Your task to perform on an android device: open a bookmark in the chrome app Image 0: 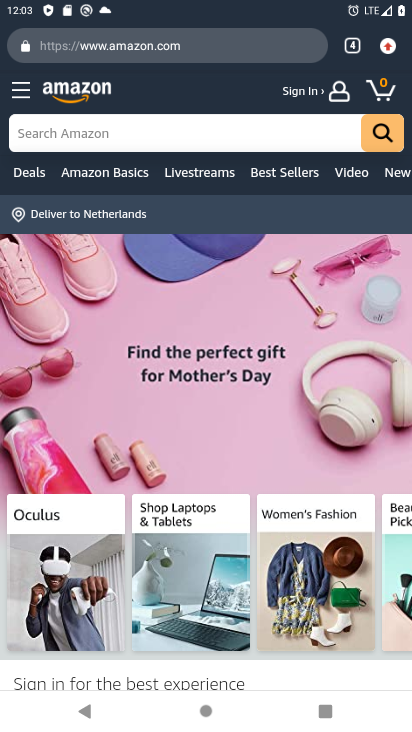
Step 0: press home button
Your task to perform on an android device: open a bookmark in the chrome app Image 1: 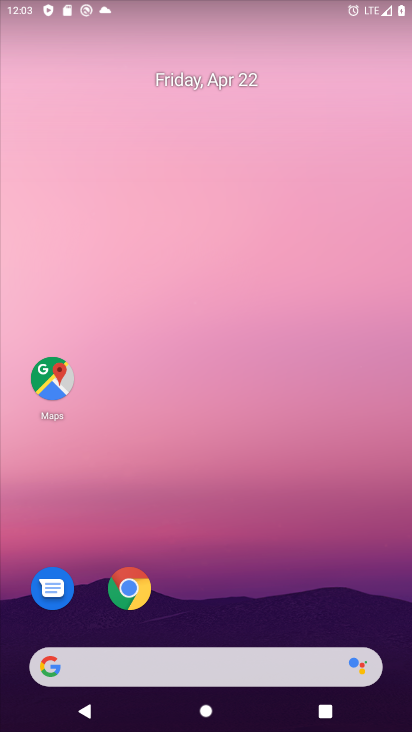
Step 1: drag from (253, 696) to (309, 256)
Your task to perform on an android device: open a bookmark in the chrome app Image 2: 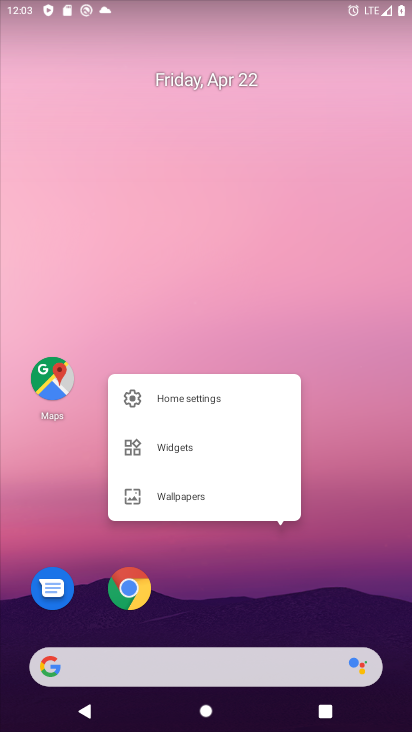
Step 2: click (330, 261)
Your task to perform on an android device: open a bookmark in the chrome app Image 3: 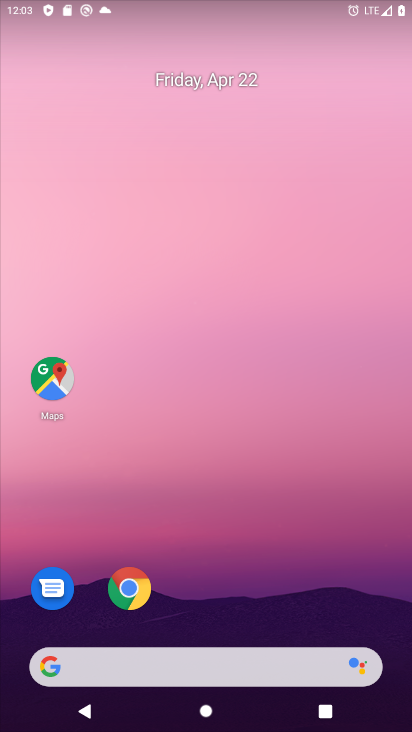
Step 3: drag from (247, 689) to (217, 145)
Your task to perform on an android device: open a bookmark in the chrome app Image 4: 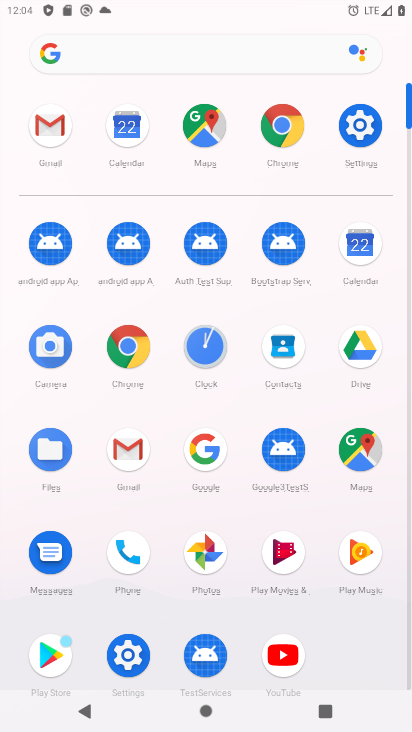
Step 4: click (279, 115)
Your task to perform on an android device: open a bookmark in the chrome app Image 5: 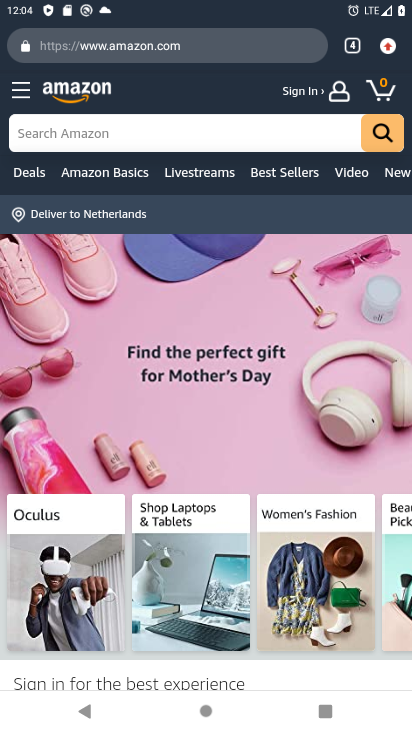
Step 5: click (390, 56)
Your task to perform on an android device: open a bookmark in the chrome app Image 6: 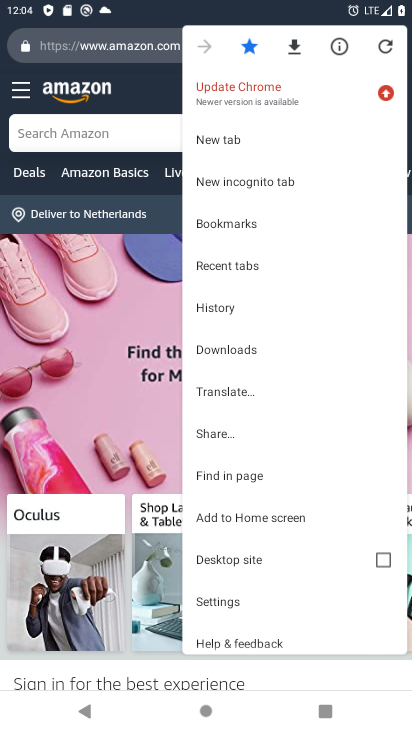
Step 6: click (228, 226)
Your task to perform on an android device: open a bookmark in the chrome app Image 7: 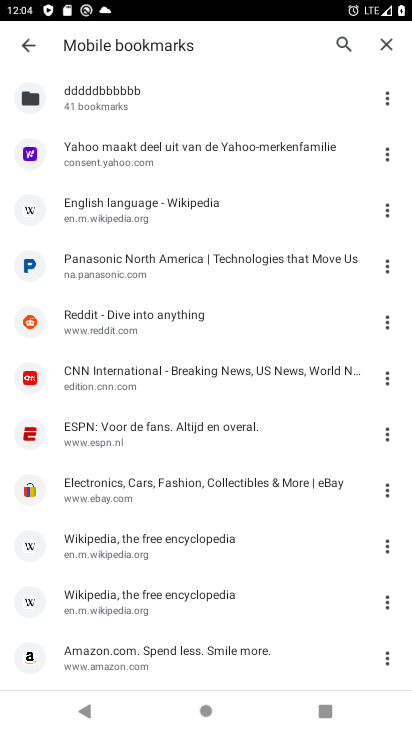
Step 7: click (136, 548)
Your task to perform on an android device: open a bookmark in the chrome app Image 8: 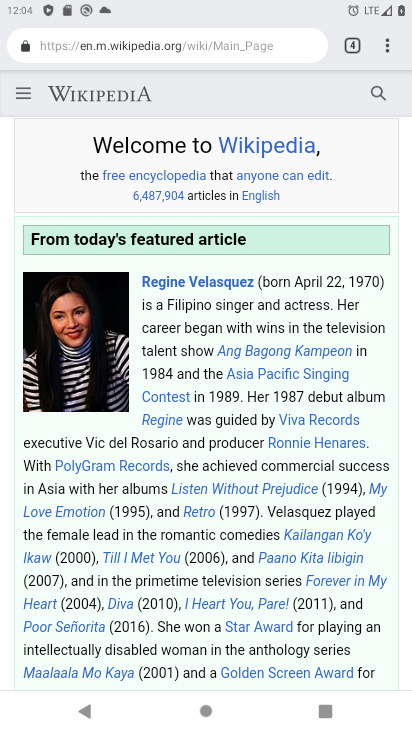
Step 8: task complete